Your task to perform on an android device: Go to CNN.com Image 0: 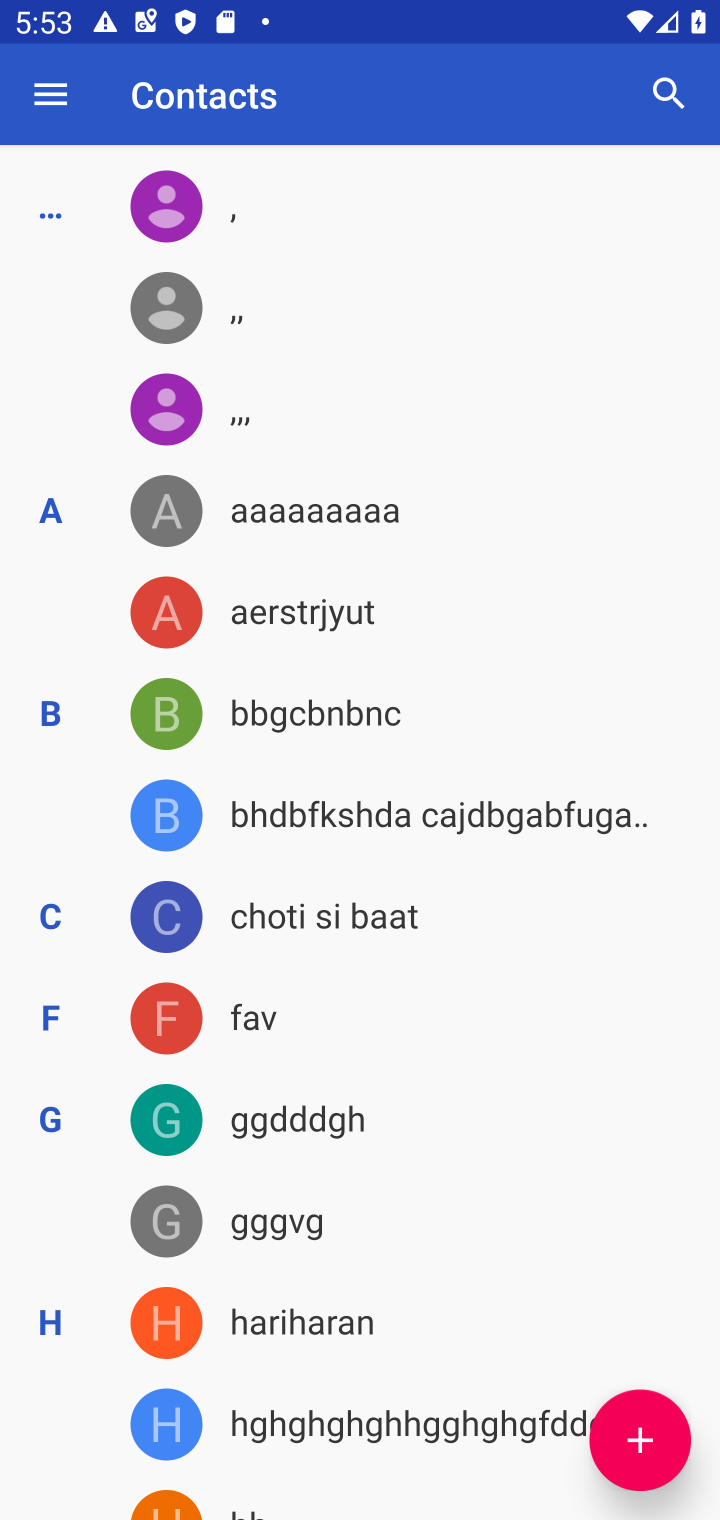
Step 0: press home button
Your task to perform on an android device: Go to CNN.com Image 1: 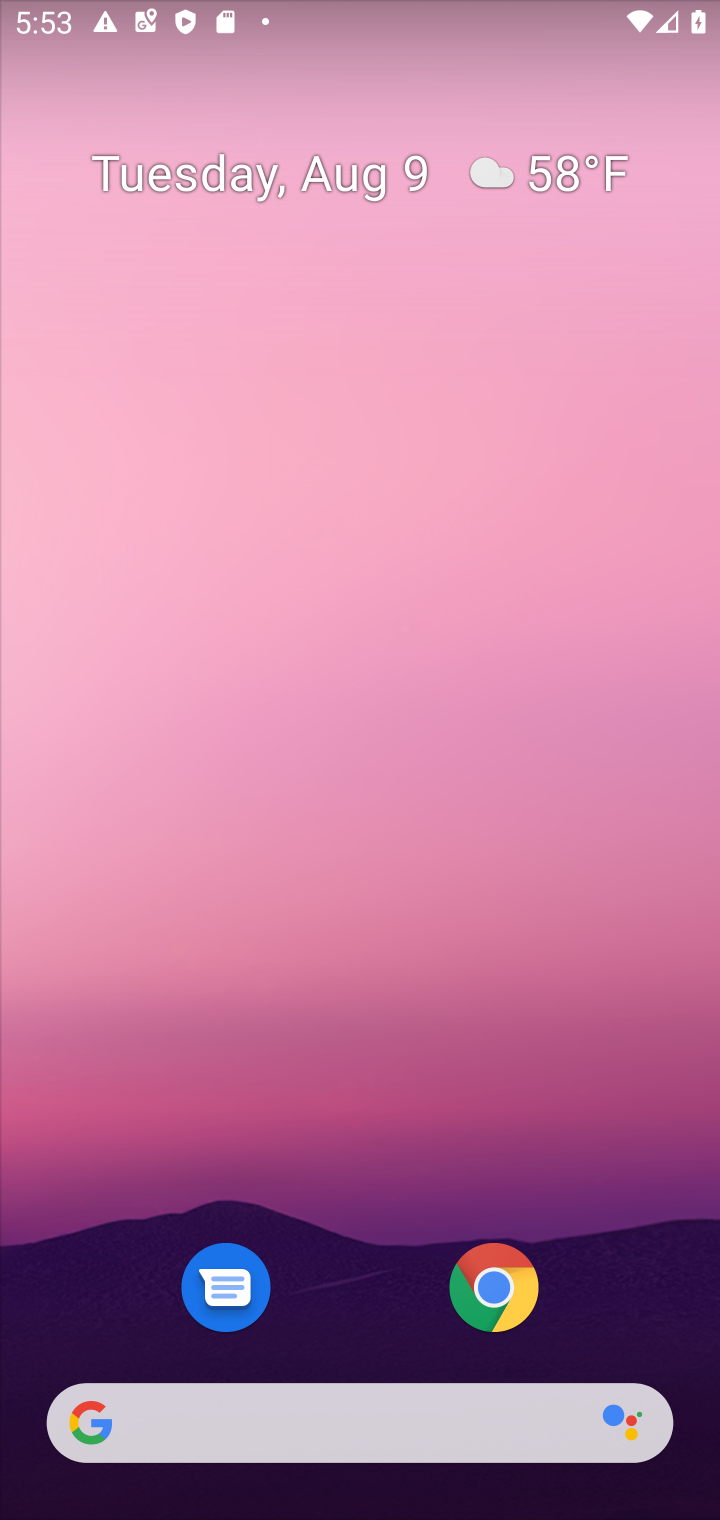
Step 1: click (258, 1447)
Your task to perform on an android device: Go to CNN.com Image 2: 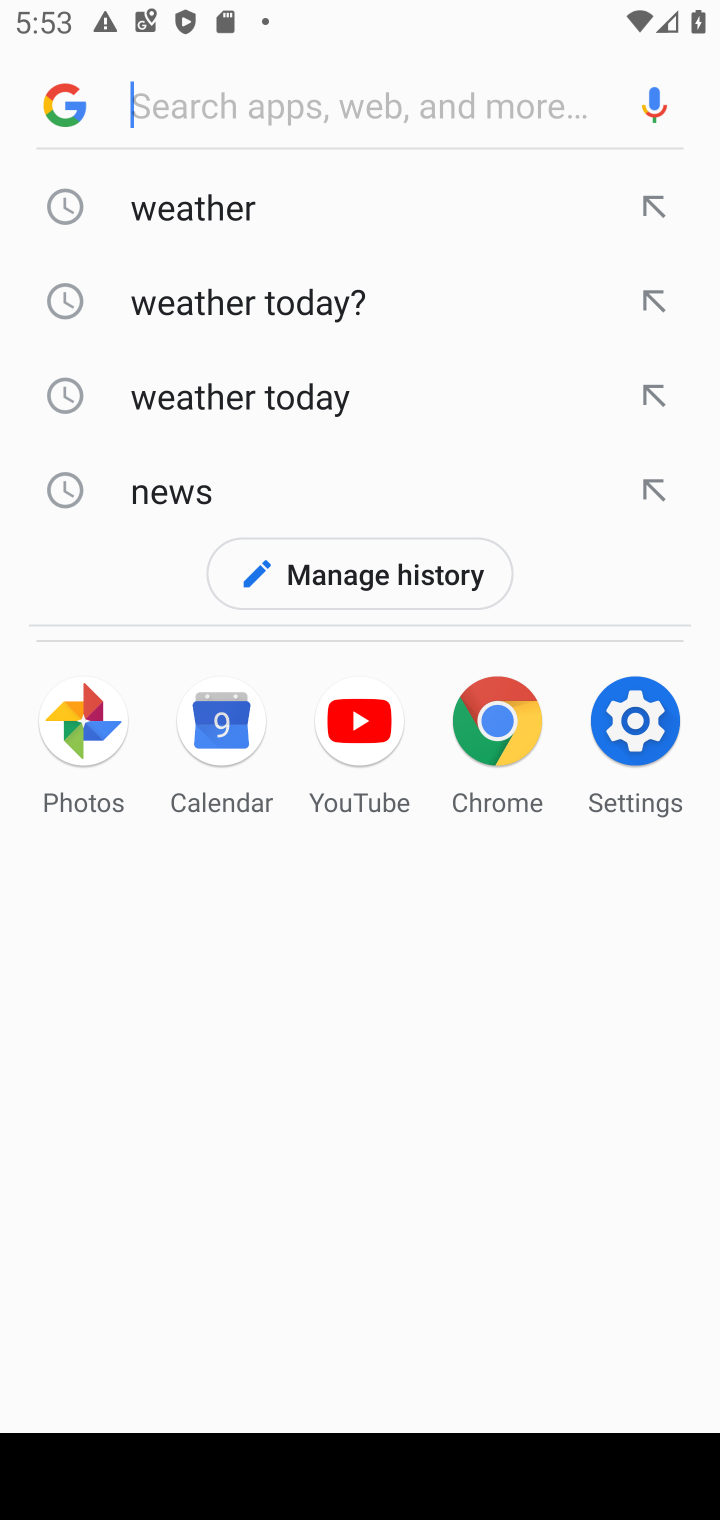
Step 2: type "CNN.com"
Your task to perform on an android device: Go to CNN.com Image 3: 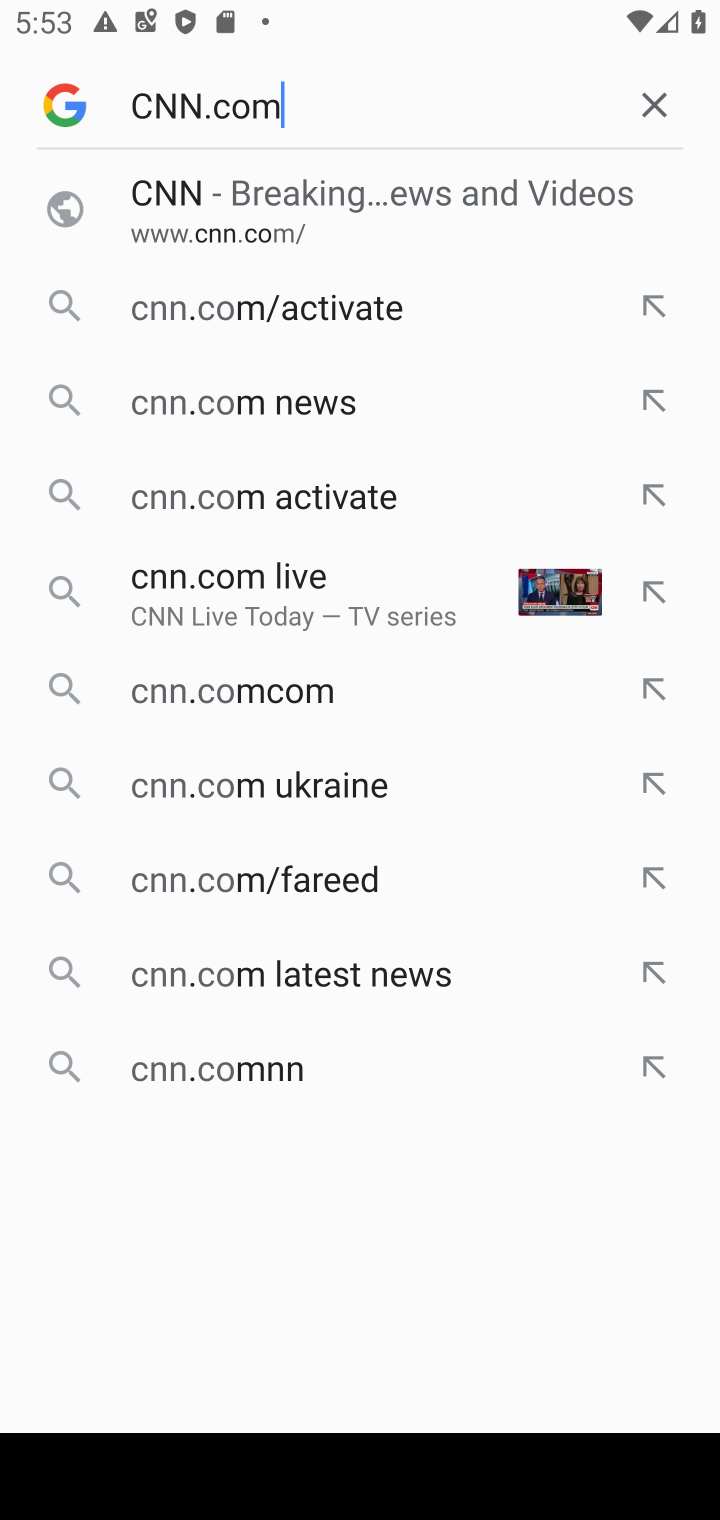
Step 3: press enter
Your task to perform on an android device: Go to CNN.com Image 4: 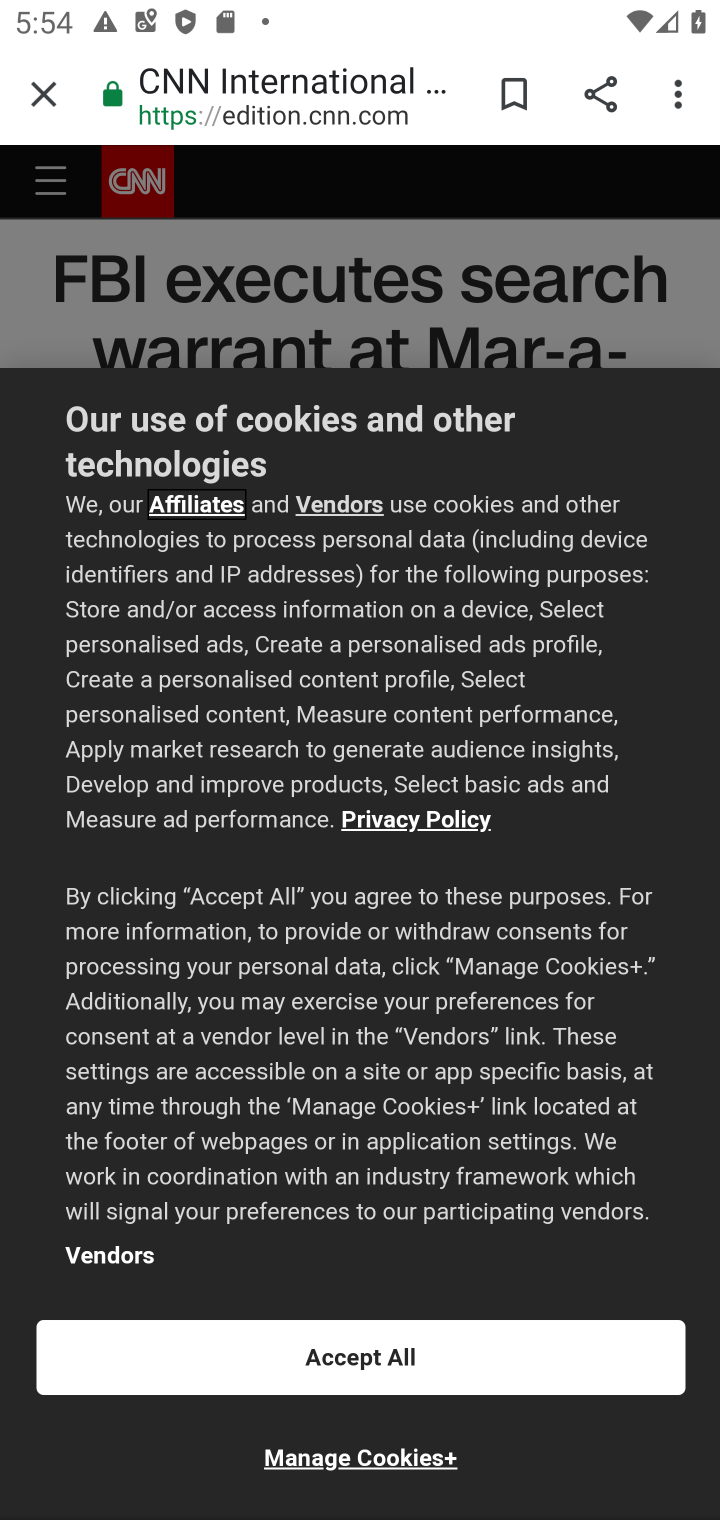
Step 4: task complete